Your task to perform on an android device: change the clock display to digital Image 0: 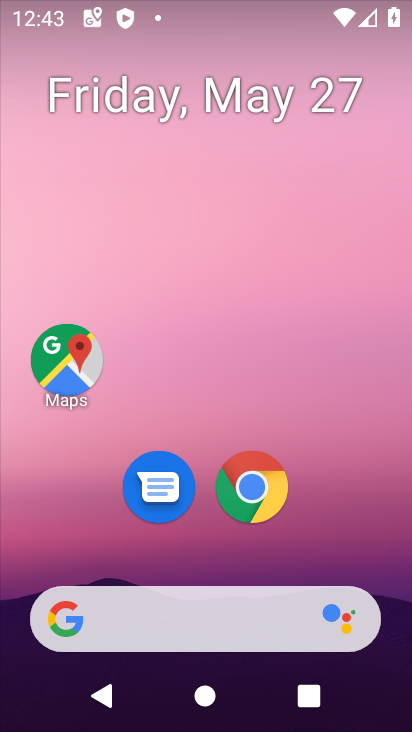
Step 0: drag from (242, 546) to (248, 124)
Your task to perform on an android device: change the clock display to digital Image 1: 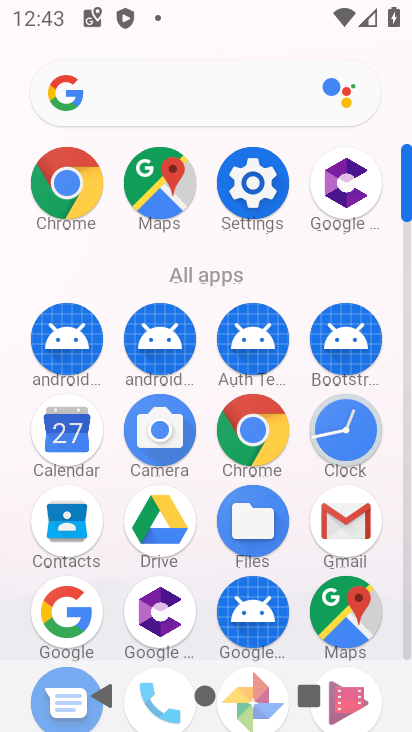
Step 1: click (344, 430)
Your task to perform on an android device: change the clock display to digital Image 2: 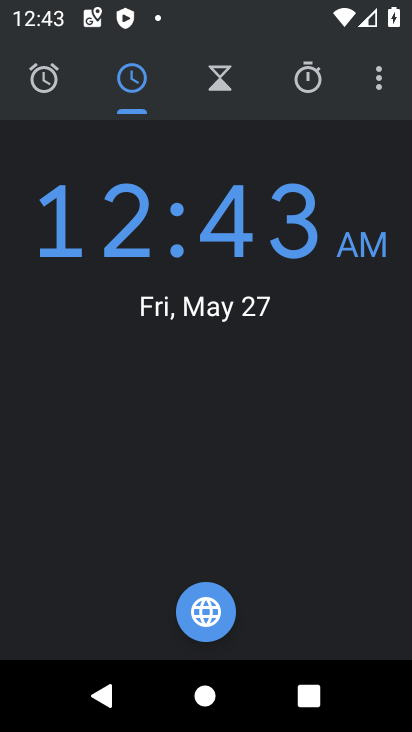
Step 2: click (371, 83)
Your task to perform on an android device: change the clock display to digital Image 3: 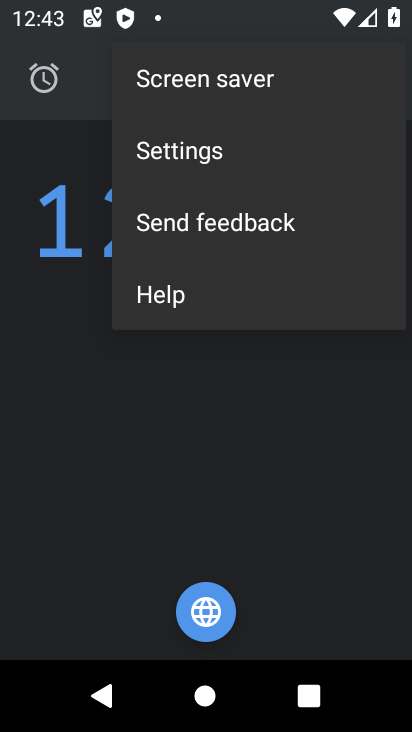
Step 3: click (233, 142)
Your task to perform on an android device: change the clock display to digital Image 4: 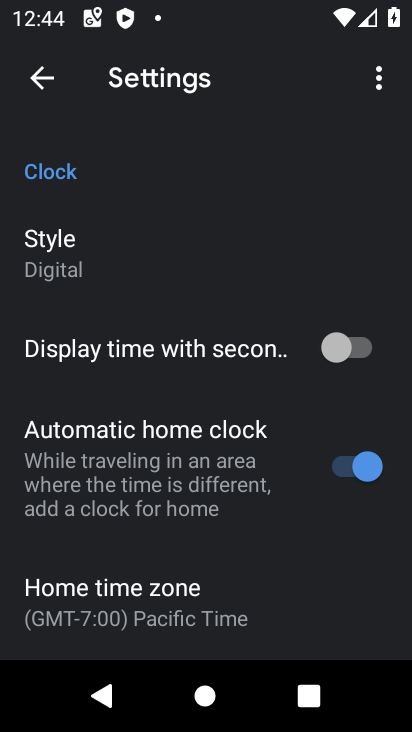
Step 4: click (140, 264)
Your task to perform on an android device: change the clock display to digital Image 5: 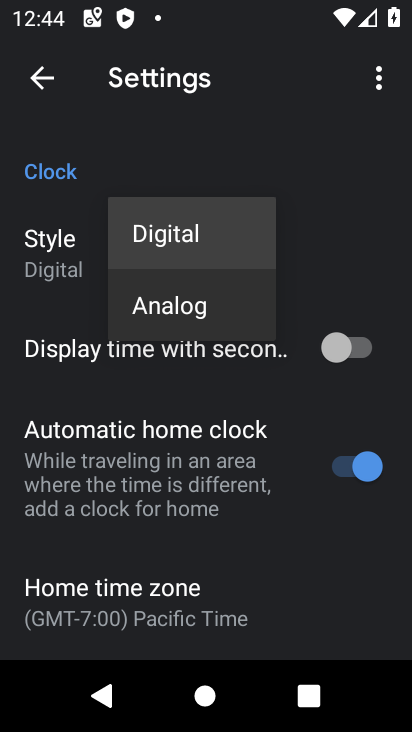
Step 5: task complete